Your task to perform on an android device: Show the shopping cart on target. Add razer deathadder to the cart on target Image 0: 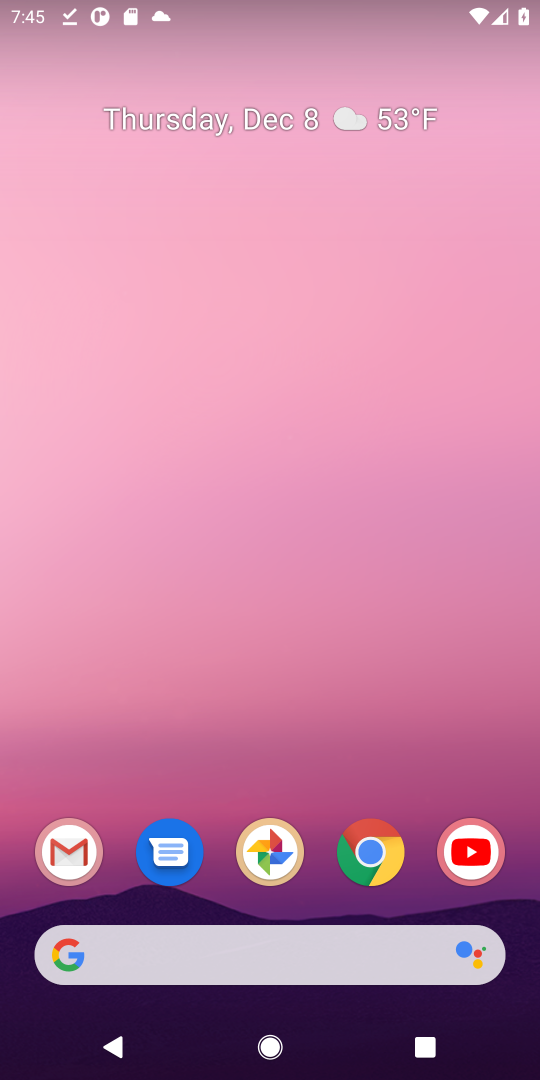
Step 0: click (340, 964)
Your task to perform on an android device: Show the shopping cart on target. Add razer deathadder to the cart on target Image 1: 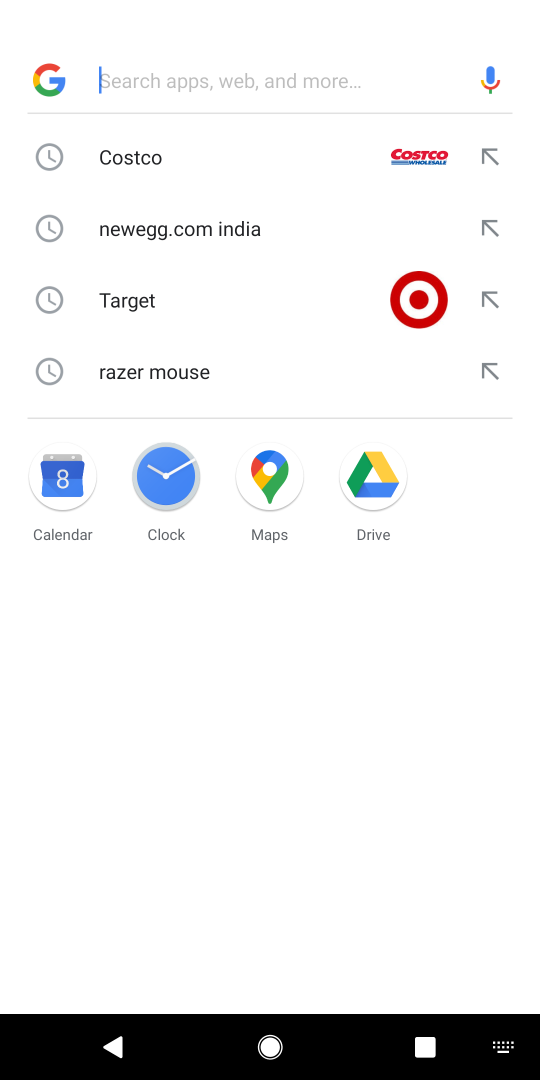
Step 1: type "razer deathadder"
Your task to perform on an android device: Show the shopping cart on target. Add razer deathadder to the cart on target Image 2: 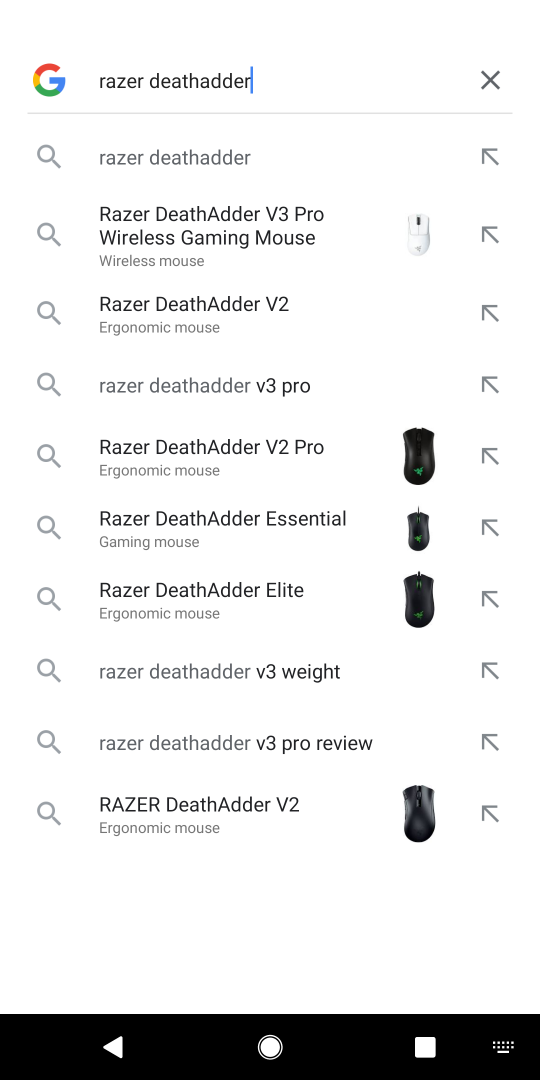
Step 2: click (216, 140)
Your task to perform on an android device: Show the shopping cart on target. Add razer deathadder to the cart on target Image 3: 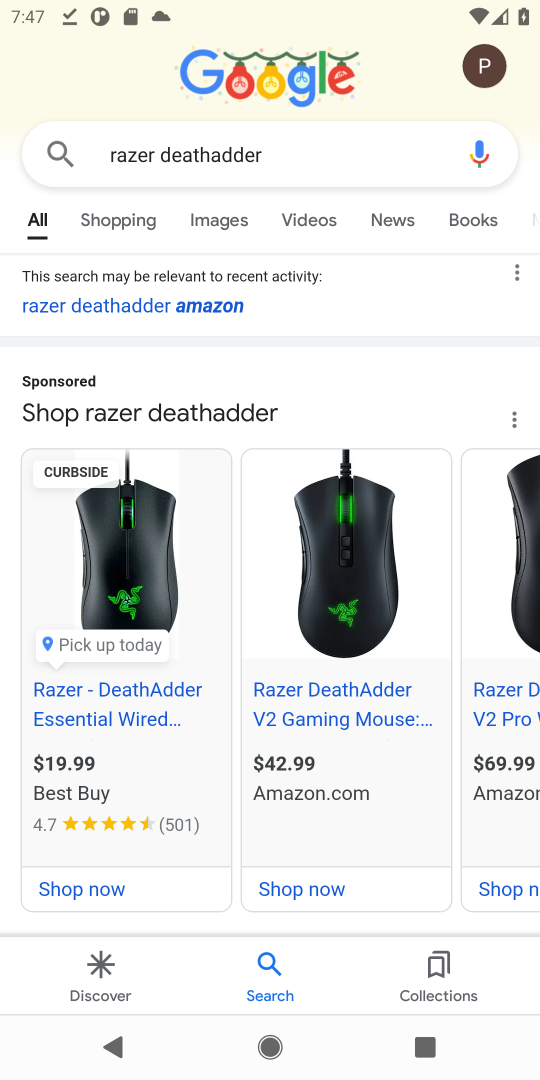
Step 3: drag from (154, 717) to (161, 215)
Your task to perform on an android device: Show the shopping cart on target. Add razer deathadder to the cart on target Image 4: 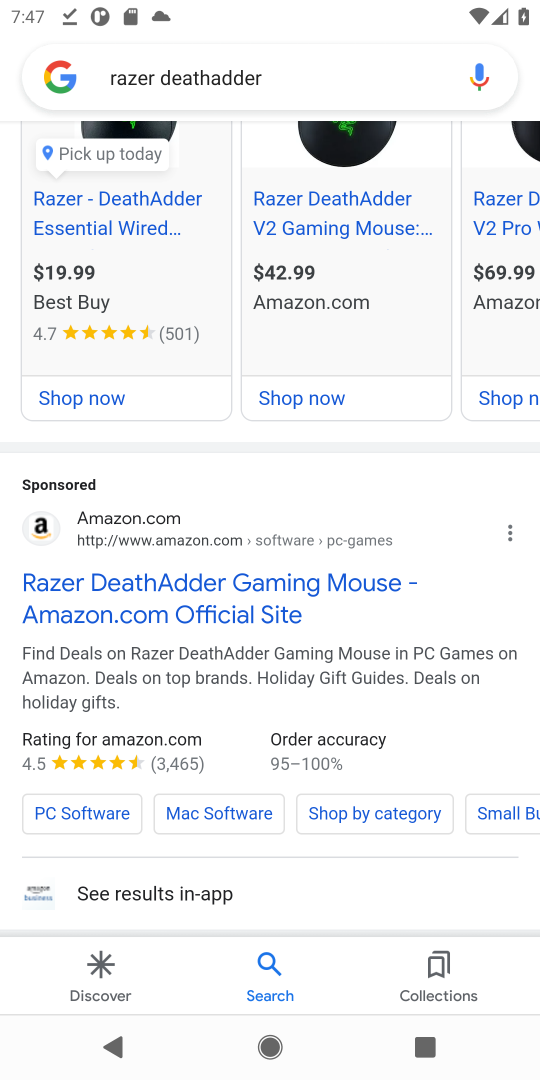
Step 4: drag from (278, 695) to (276, 71)
Your task to perform on an android device: Show the shopping cart on target. Add razer deathadder to the cart on target Image 5: 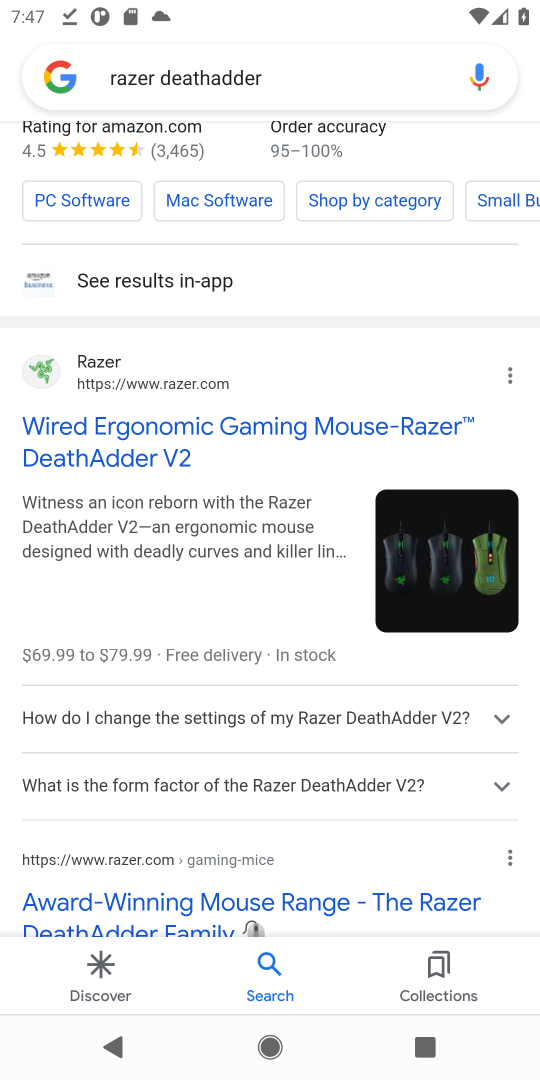
Step 5: click (224, 464)
Your task to perform on an android device: Show the shopping cart on target. Add razer deathadder to the cart on target Image 6: 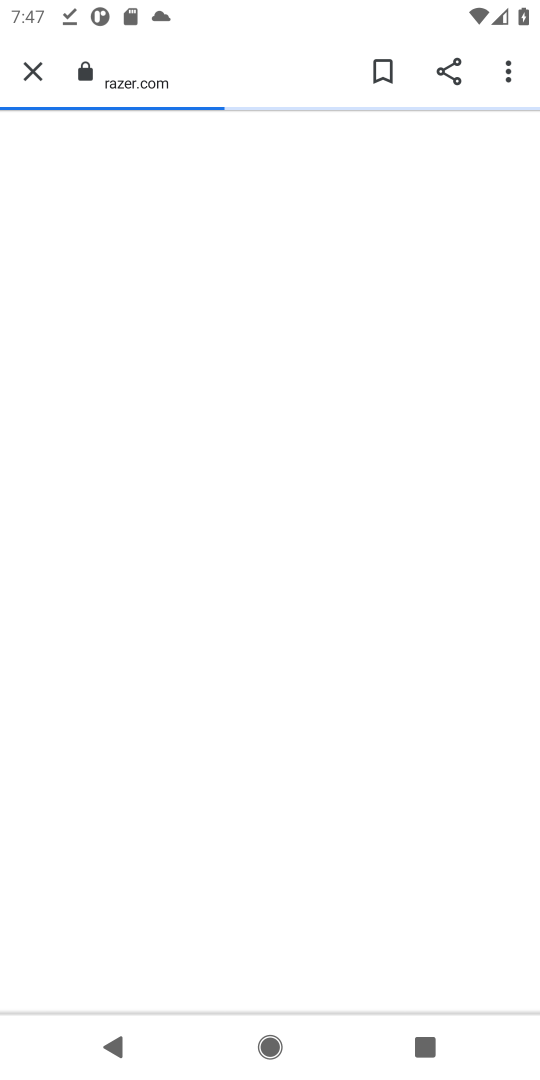
Step 6: task complete